Your task to perform on an android device: Go to notification settings Image 0: 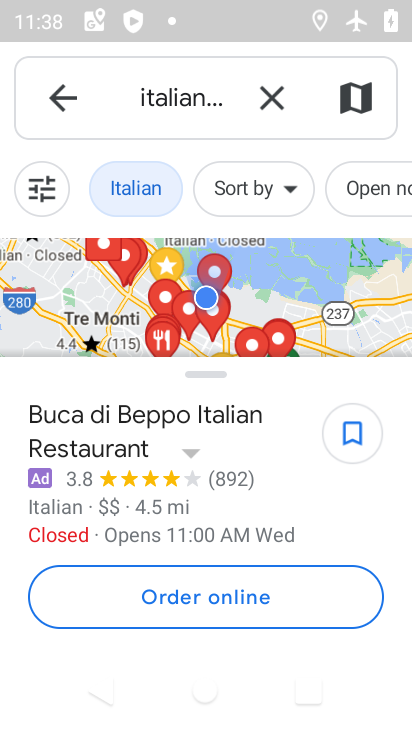
Step 0: press home button
Your task to perform on an android device: Go to notification settings Image 1: 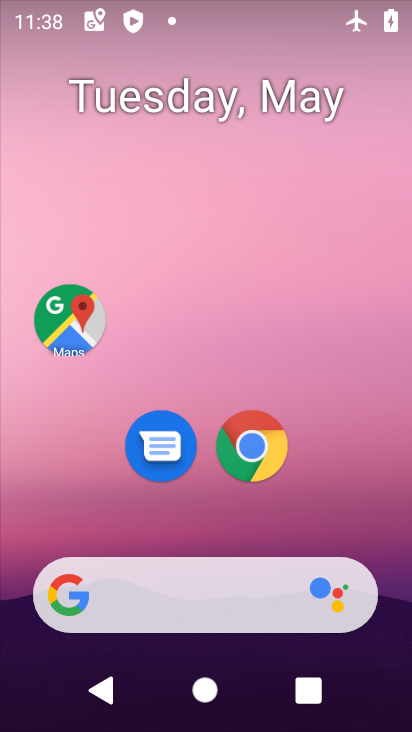
Step 1: drag from (229, 725) to (235, 70)
Your task to perform on an android device: Go to notification settings Image 2: 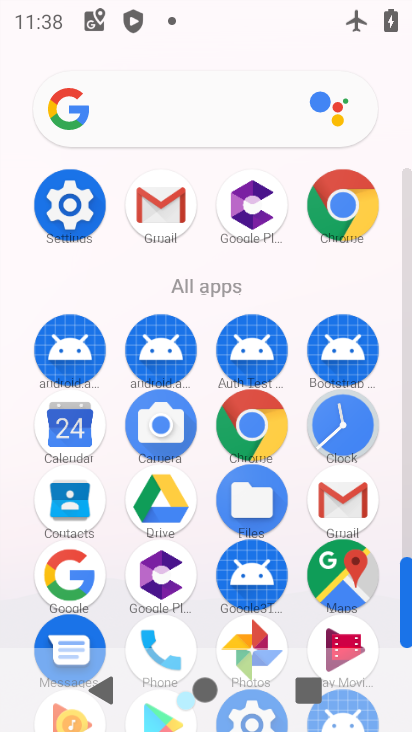
Step 2: click (73, 197)
Your task to perform on an android device: Go to notification settings Image 3: 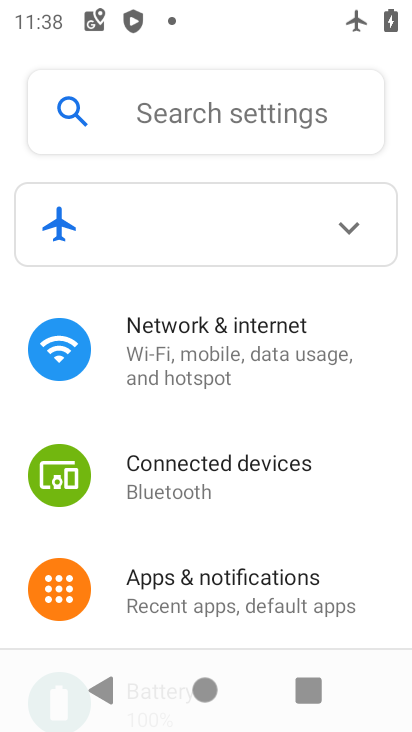
Step 3: click (198, 584)
Your task to perform on an android device: Go to notification settings Image 4: 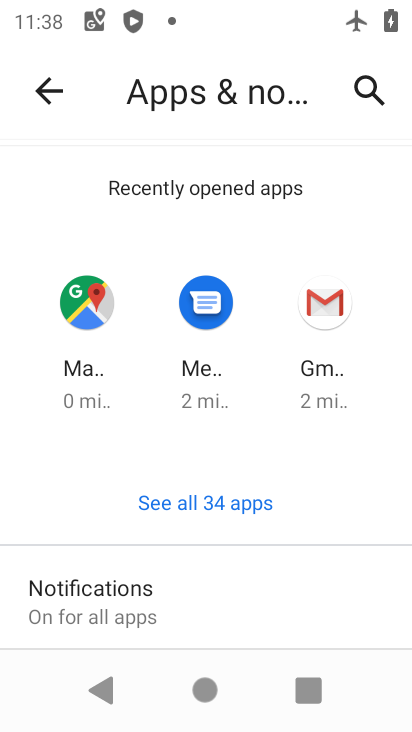
Step 4: drag from (185, 632) to (202, 401)
Your task to perform on an android device: Go to notification settings Image 5: 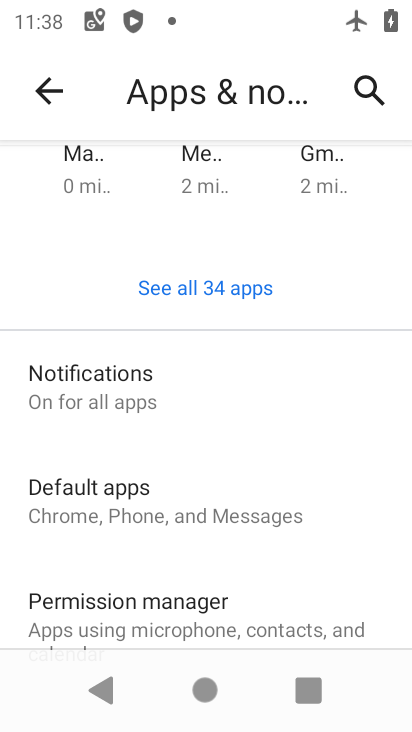
Step 5: click (96, 386)
Your task to perform on an android device: Go to notification settings Image 6: 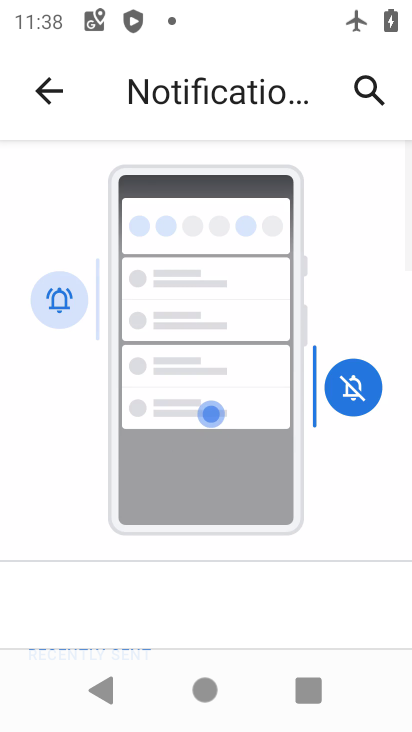
Step 6: task complete